Your task to perform on an android device: What's the weather going to be tomorrow? Image 0: 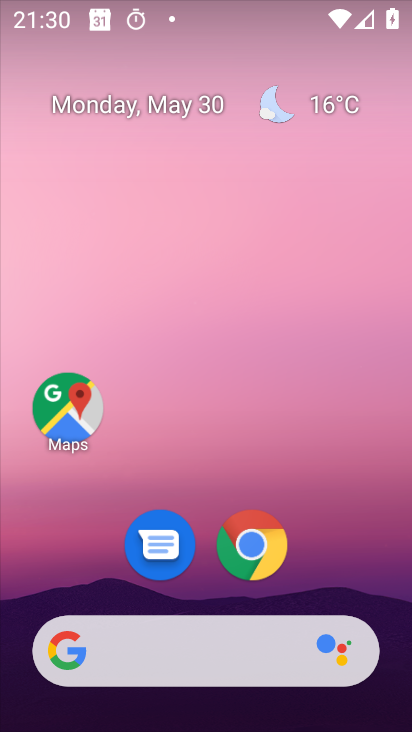
Step 0: click (330, 102)
Your task to perform on an android device: What's the weather going to be tomorrow? Image 1: 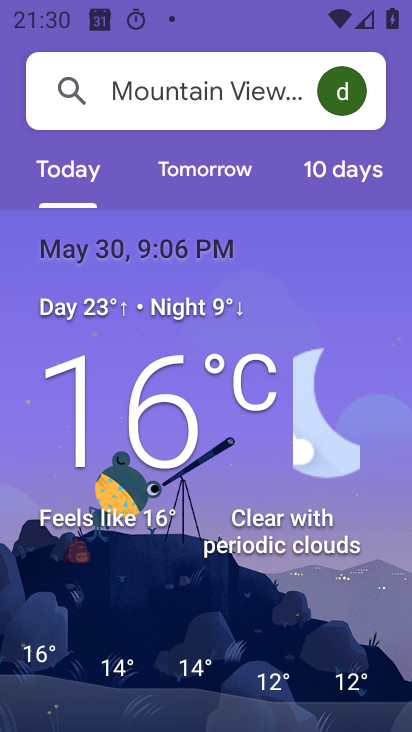
Step 1: click (215, 165)
Your task to perform on an android device: What's the weather going to be tomorrow? Image 2: 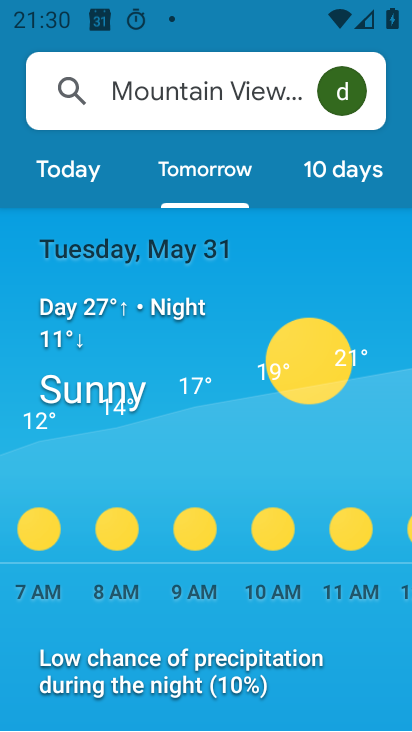
Step 2: task complete